Your task to perform on an android device: Open the calendar and show me this week's events? Image 0: 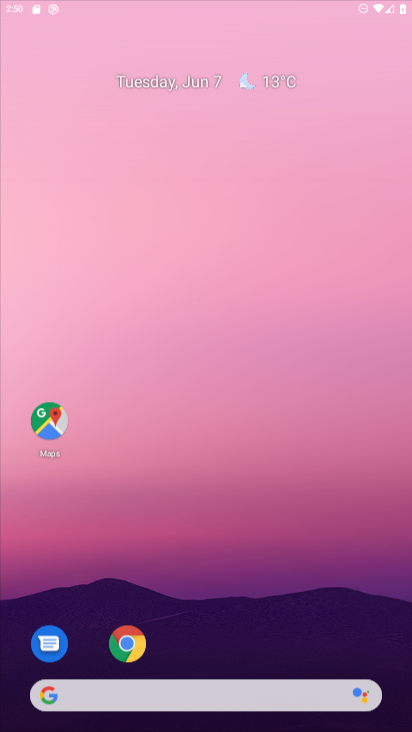
Step 0: press home button
Your task to perform on an android device: Open the calendar and show me this week's events? Image 1: 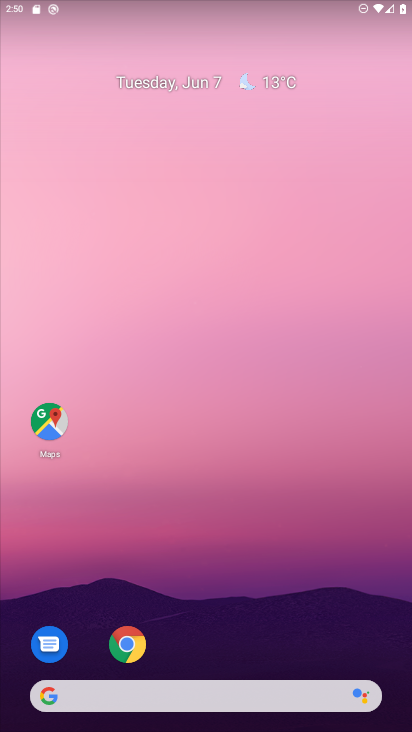
Step 1: drag from (209, 657) to (208, 428)
Your task to perform on an android device: Open the calendar and show me this week's events? Image 2: 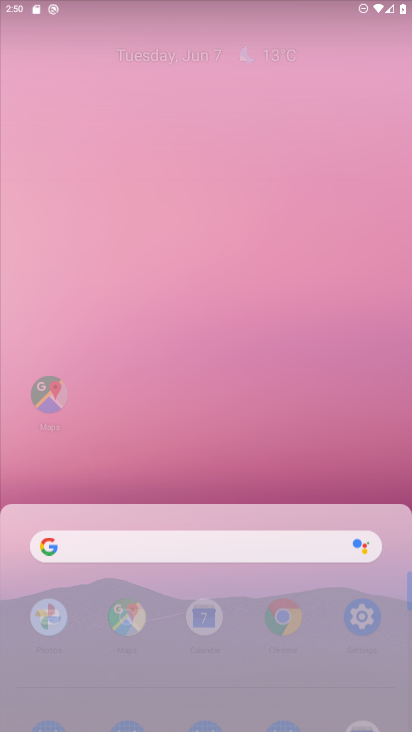
Step 2: click (243, 102)
Your task to perform on an android device: Open the calendar and show me this week's events? Image 3: 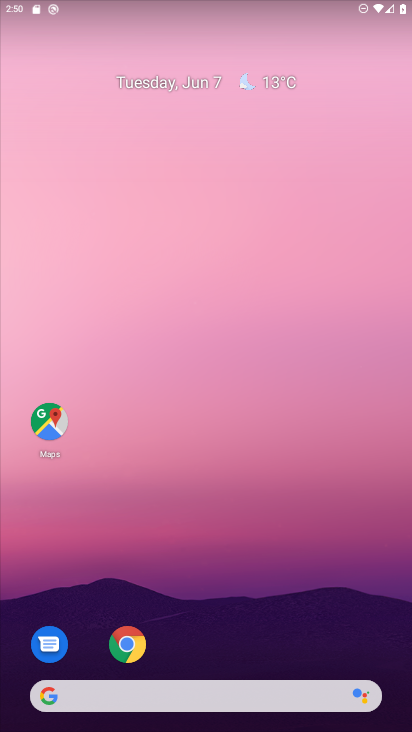
Step 3: drag from (222, 670) to (209, 103)
Your task to perform on an android device: Open the calendar and show me this week's events? Image 4: 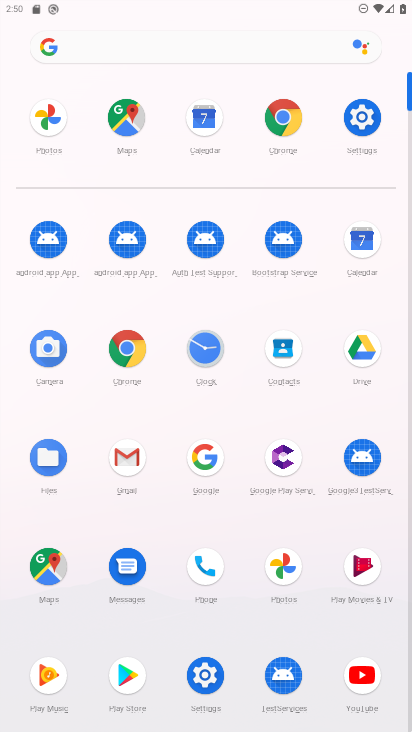
Step 4: click (362, 237)
Your task to perform on an android device: Open the calendar and show me this week's events? Image 5: 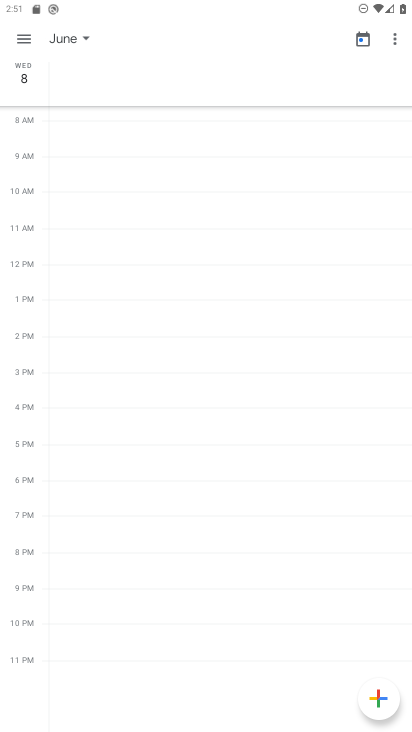
Step 5: click (85, 34)
Your task to perform on an android device: Open the calendar and show me this week's events? Image 6: 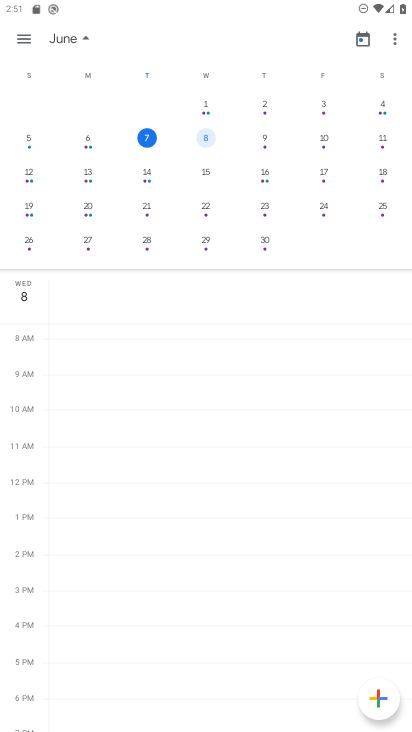
Step 6: click (84, 39)
Your task to perform on an android device: Open the calendar and show me this week's events? Image 7: 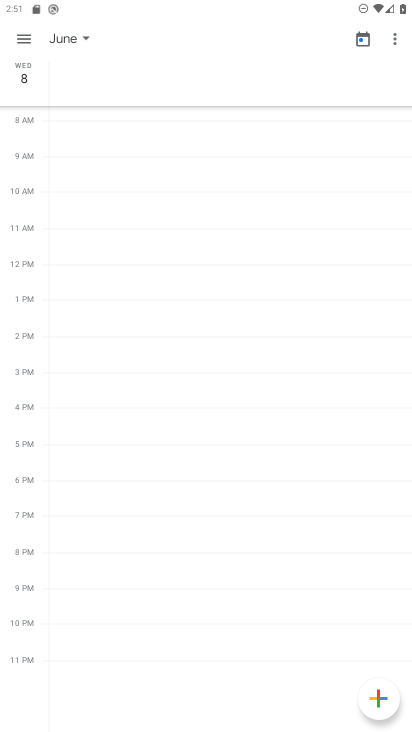
Step 7: click (24, 81)
Your task to perform on an android device: Open the calendar and show me this week's events? Image 8: 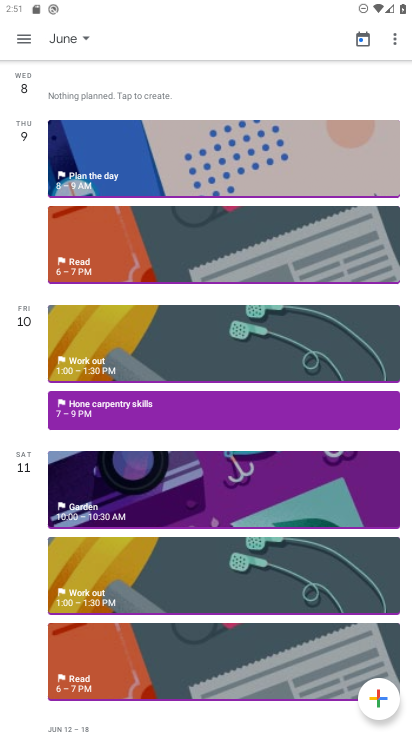
Step 8: drag from (29, 190) to (38, 115)
Your task to perform on an android device: Open the calendar and show me this week's events? Image 9: 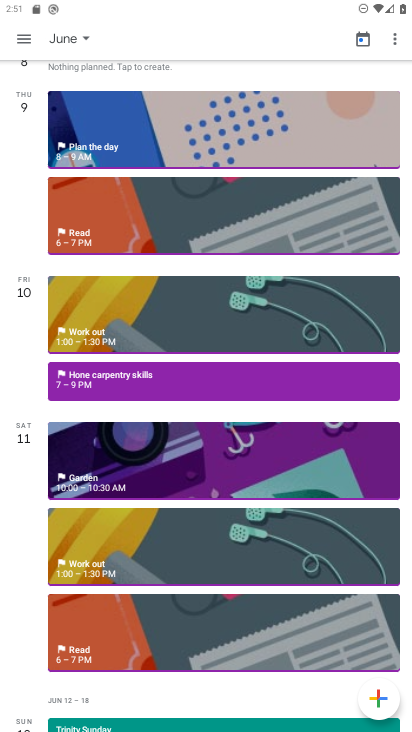
Step 9: click (48, 44)
Your task to perform on an android device: Open the calendar and show me this week's events? Image 10: 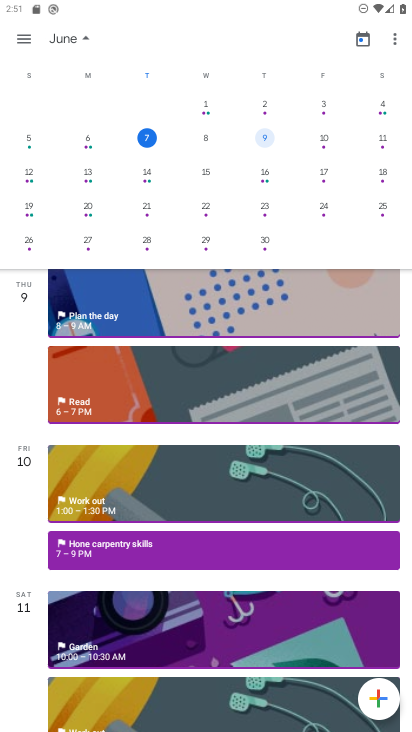
Step 10: task complete